Your task to perform on an android device: toggle notification dots Image 0: 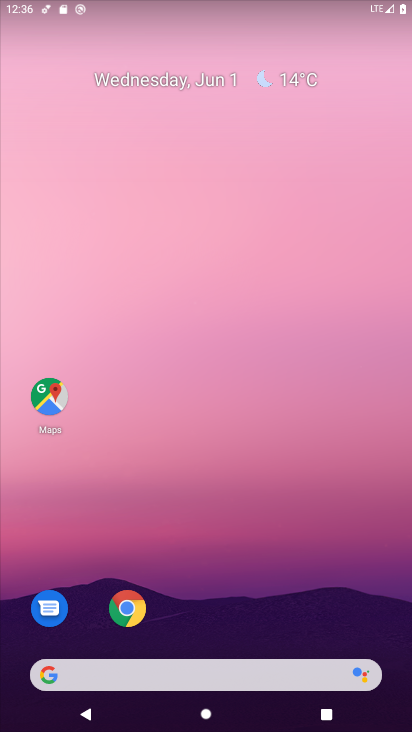
Step 0: drag from (221, 622) to (240, 293)
Your task to perform on an android device: toggle notification dots Image 1: 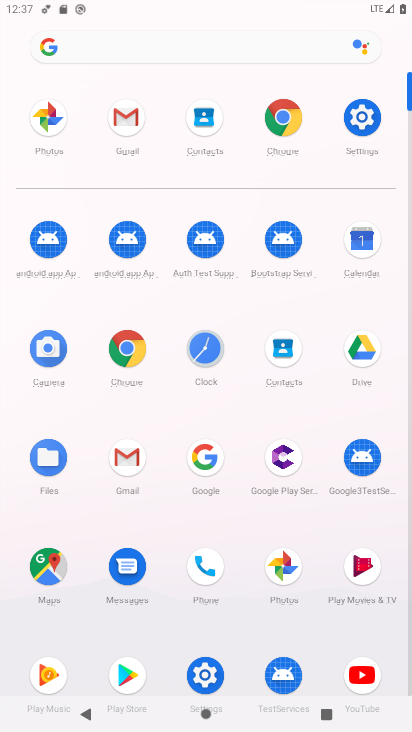
Step 1: click (369, 118)
Your task to perform on an android device: toggle notification dots Image 2: 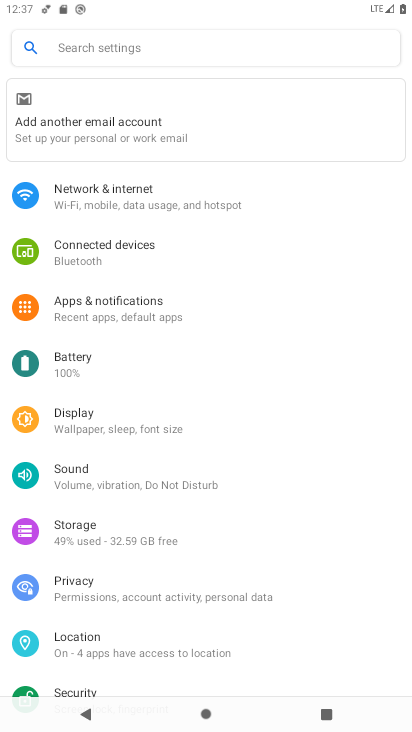
Step 2: click (133, 314)
Your task to perform on an android device: toggle notification dots Image 3: 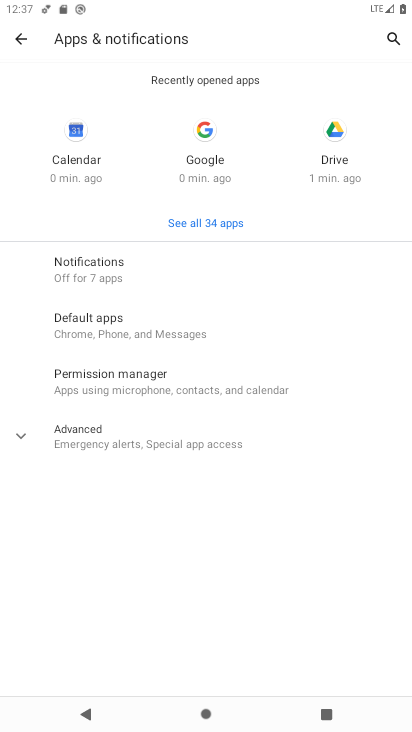
Step 3: click (123, 276)
Your task to perform on an android device: toggle notification dots Image 4: 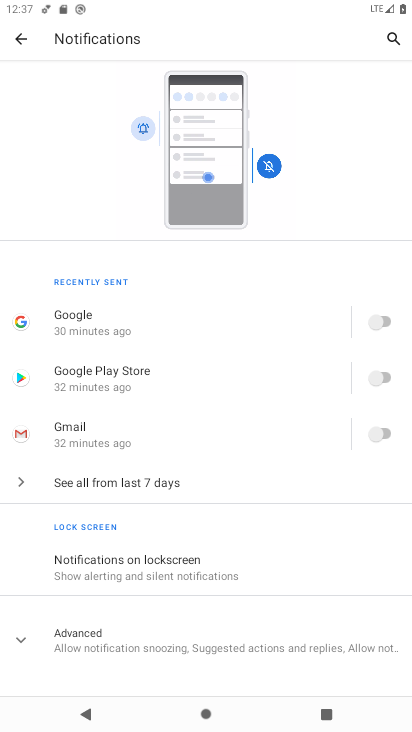
Step 4: drag from (179, 531) to (245, 227)
Your task to perform on an android device: toggle notification dots Image 5: 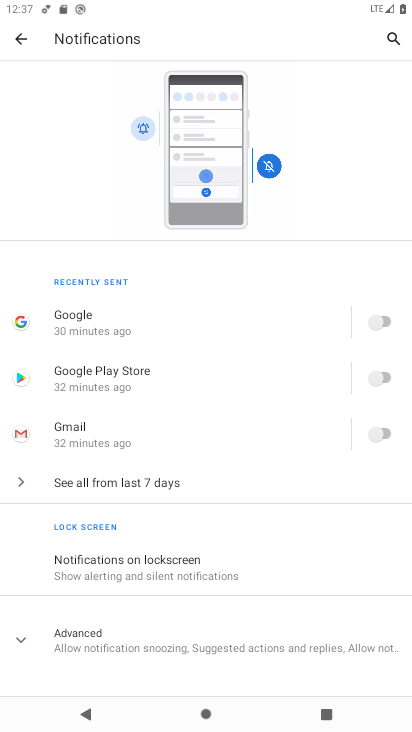
Step 5: click (166, 639)
Your task to perform on an android device: toggle notification dots Image 6: 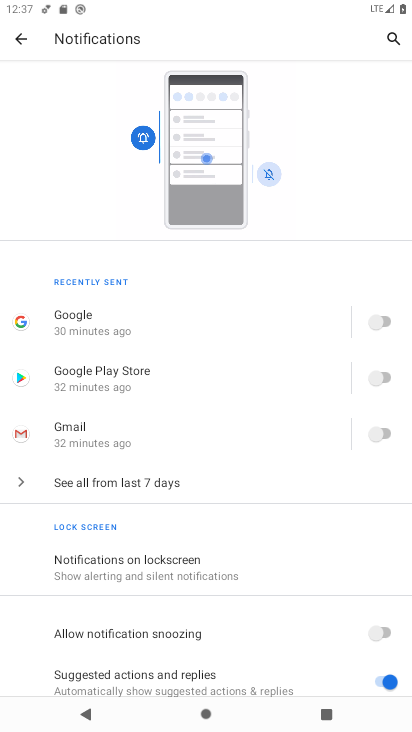
Step 6: drag from (168, 636) to (189, 452)
Your task to perform on an android device: toggle notification dots Image 7: 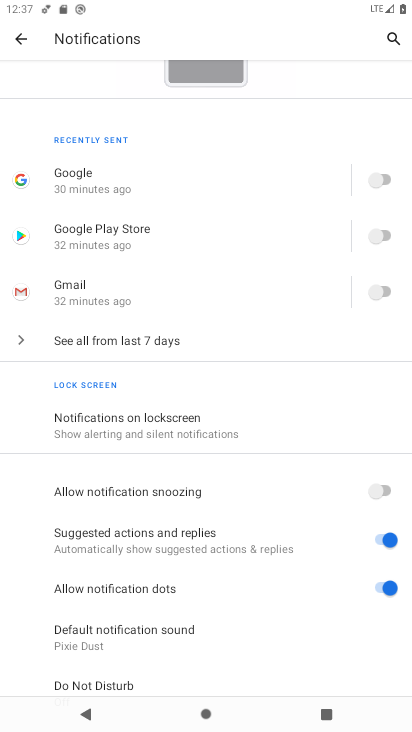
Step 7: click (363, 583)
Your task to perform on an android device: toggle notification dots Image 8: 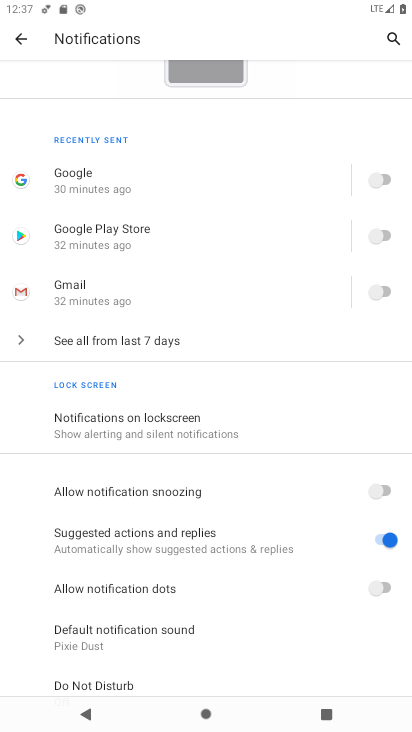
Step 8: task complete